Your task to perform on an android device: set an alarm Image 0: 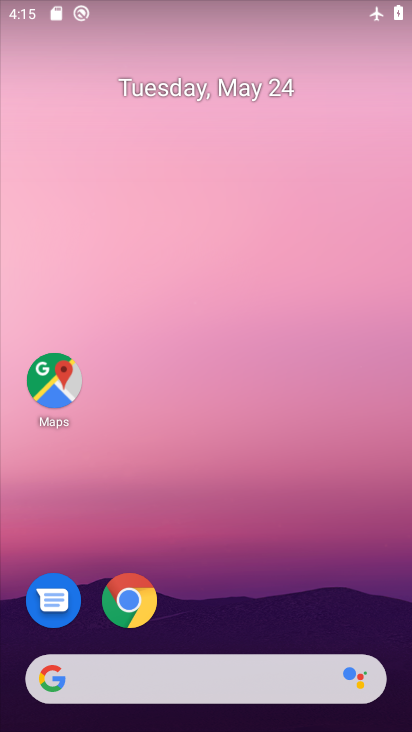
Step 0: drag from (283, 646) to (234, 14)
Your task to perform on an android device: set an alarm Image 1: 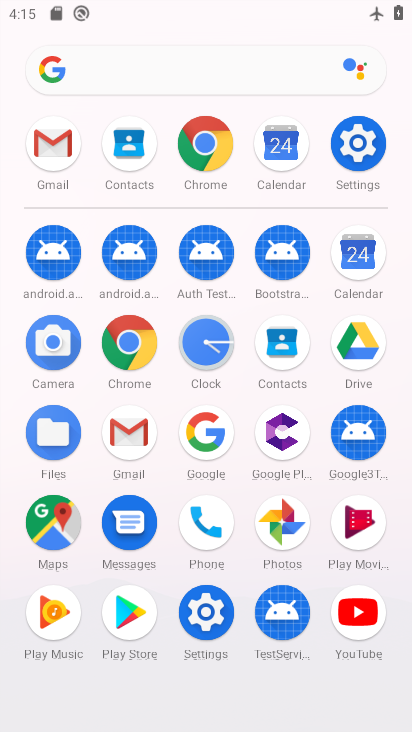
Step 1: click (190, 335)
Your task to perform on an android device: set an alarm Image 2: 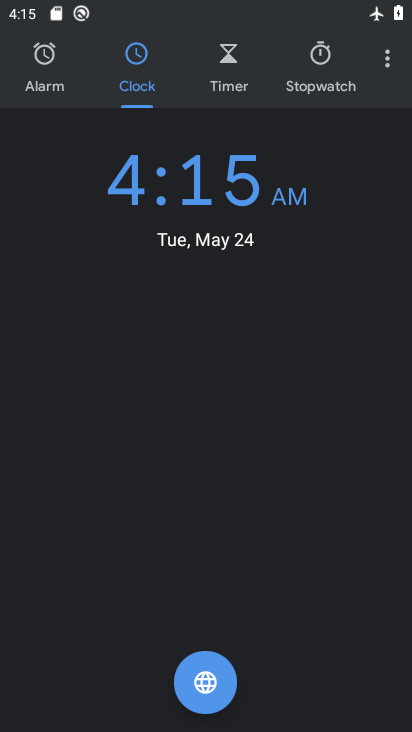
Step 2: click (37, 39)
Your task to perform on an android device: set an alarm Image 3: 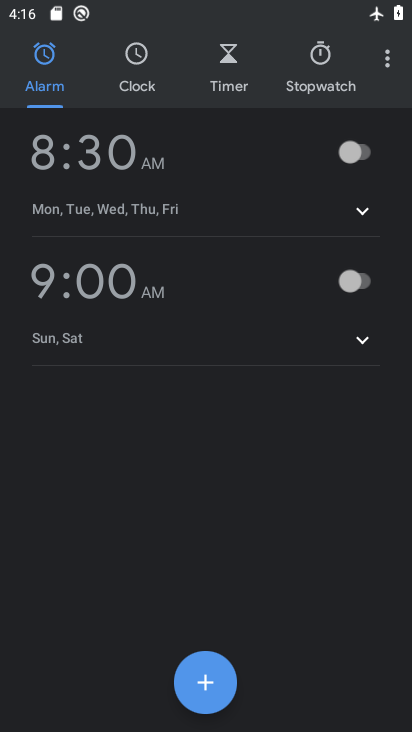
Step 3: click (360, 148)
Your task to perform on an android device: set an alarm Image 4: 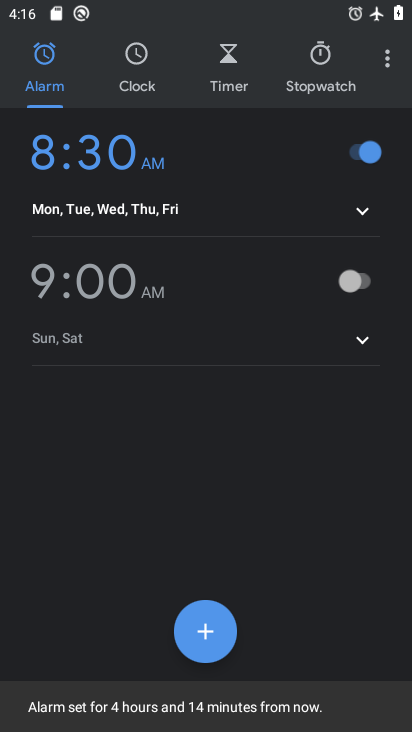
Step 4: task complete